Your task to perform on an android device: change the clock display to digital Image 0: 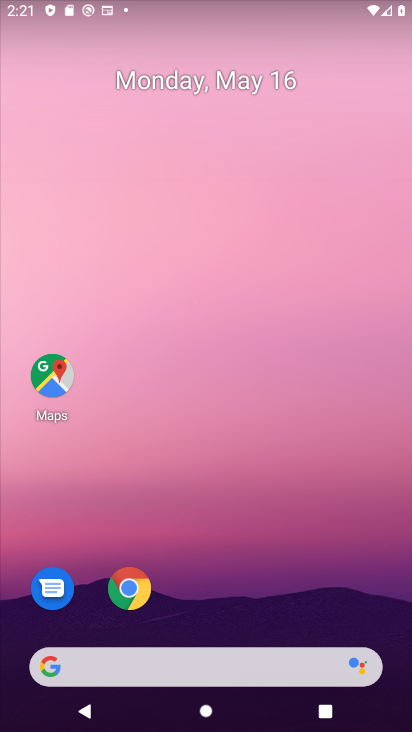
Step 0: drag from (189, 635) to (285, 130)
Your task to perform on an android device: change the clock display to digital Image 1: 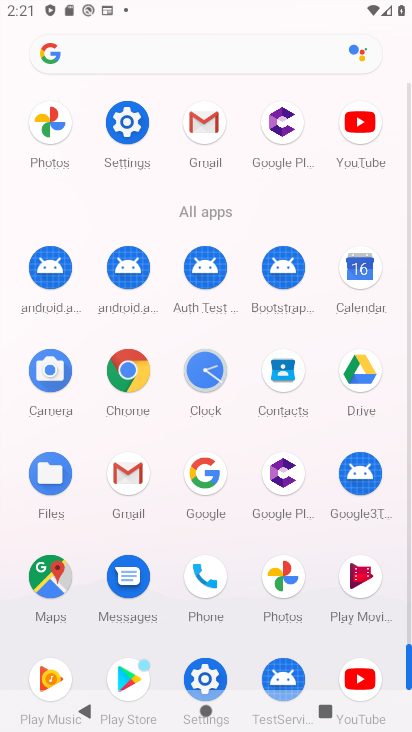
Step 1: click (198, 375)
Your task to perform on an android device: change the clock display to digital Image 2: 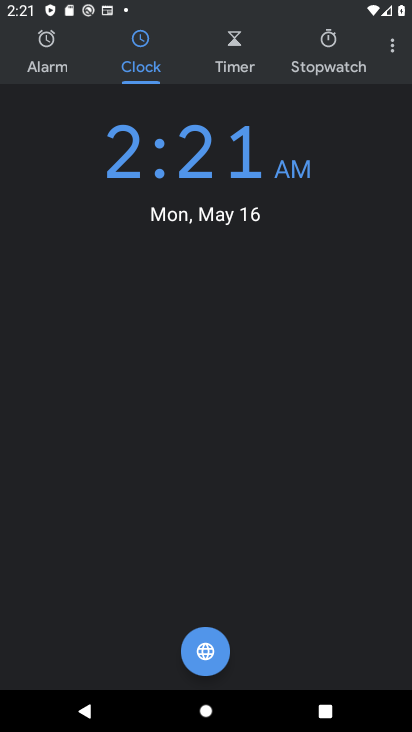
Step 2: click (402, 51)
Your task to perform on an android device: change the clock display to digital Image 3: 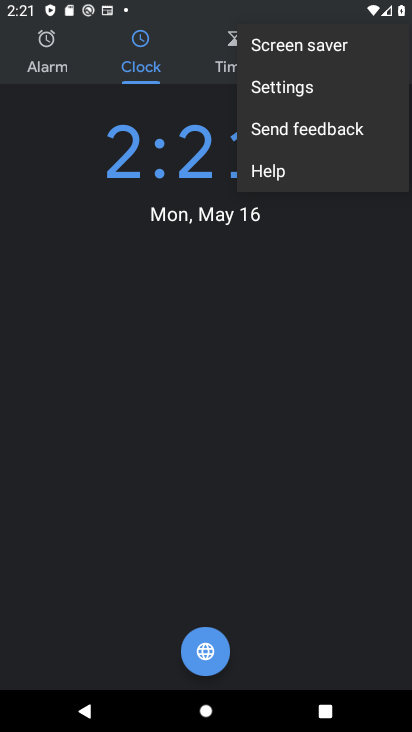
Step 3: click (353, 89)
Your task to perform on an android device: change the clock display to digital Image 4: 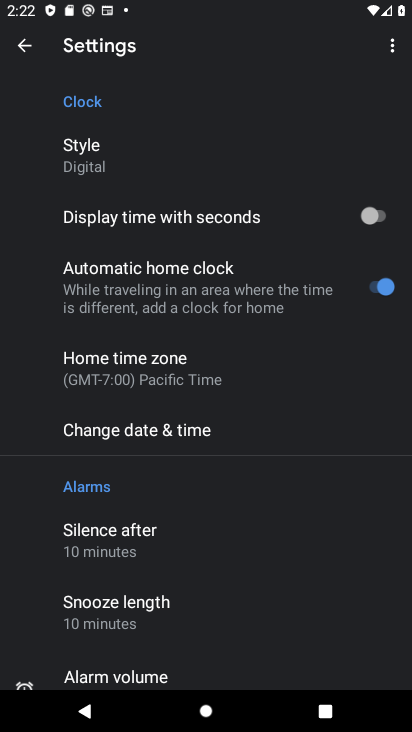
Step 4: task complete